Your task to perform on an android device: Show me productivity apps on the Play Store Image 0: 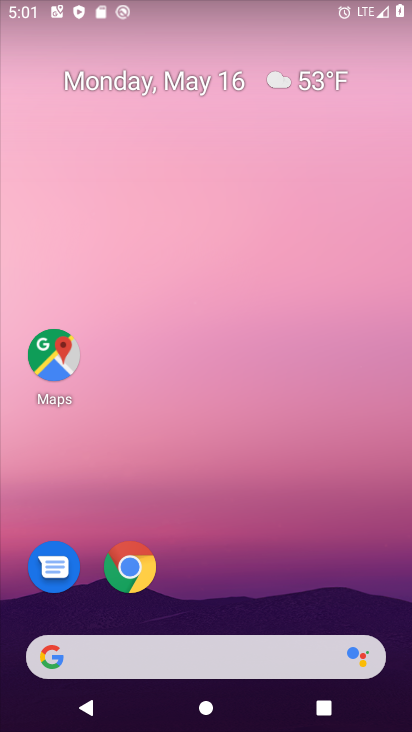
Step 0: drag from (243, 649) to (238, 125)
Your task to perform on an android device: Show me productivity apps on the Play Store Image 1: 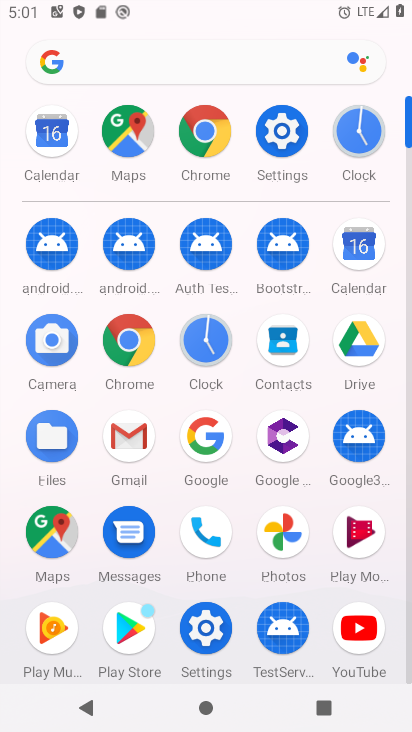
Step 1: drag from (315, 632) to (339, 344)
Your task to perform on an android device: Show me productivity apps on the Play Store Image 2: 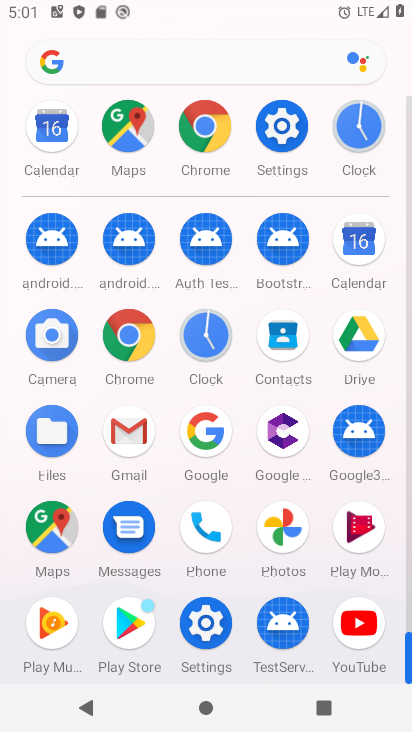
Step 2: click (148, 621)
Your task to perform on an android device: Show me productivity apps on the Play Store Image 3: 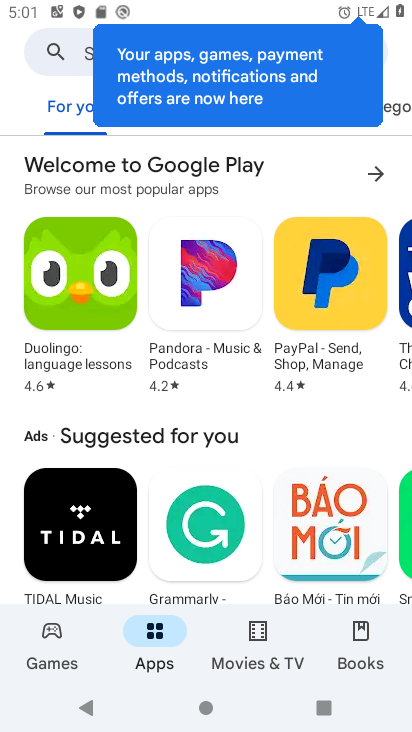
Step 3: task complete